Your task to perform on an android device: Open the web browser Image 0: 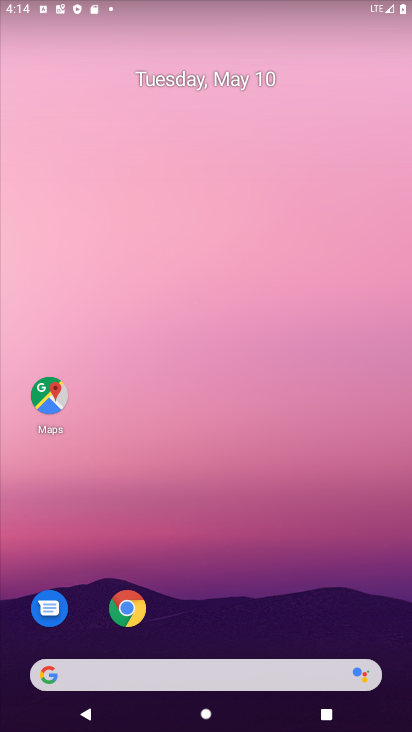
Step 0: click (127, 603)
Your task to perform on an android device: Open the web browser Image 1: 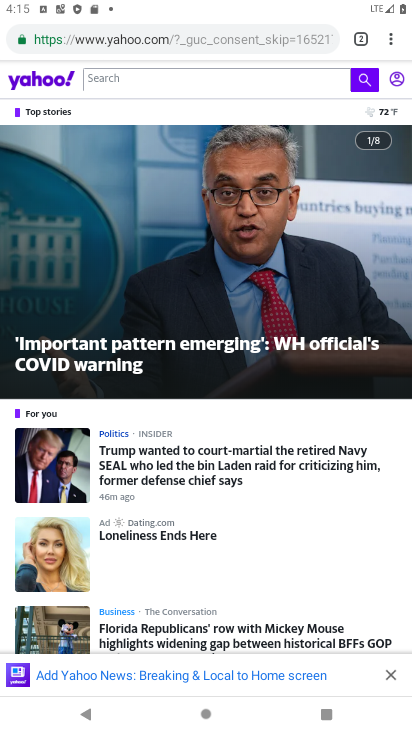
Step 1: task complete